Your task to perform on an android device: Clear all items from cart on target.com. Image 0: 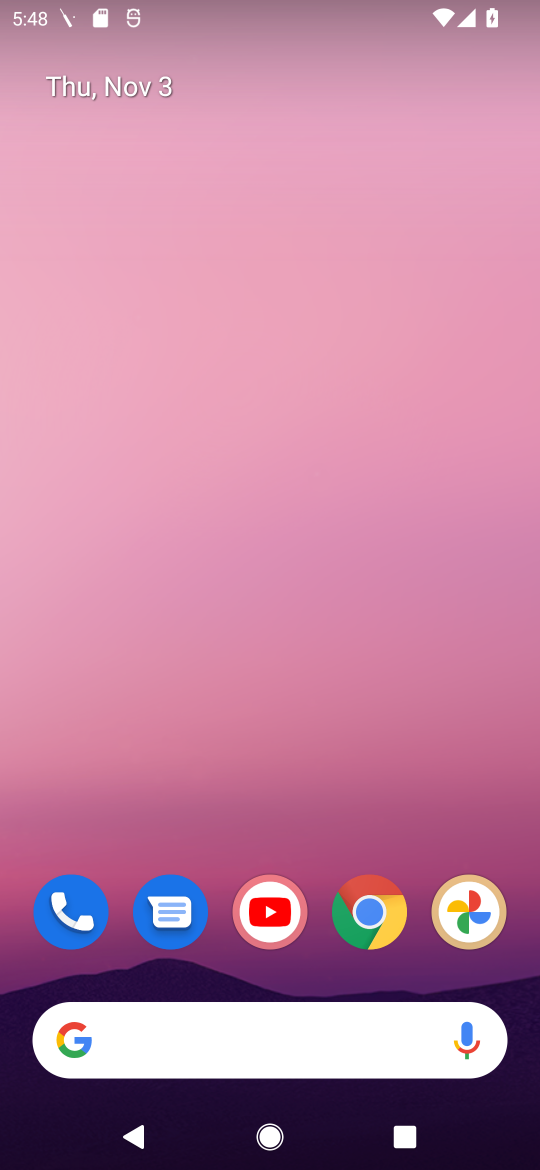
Step 0: click (368, 916)
Your task to perform on an android device: Clear all items from cart on target.com. Image 1: 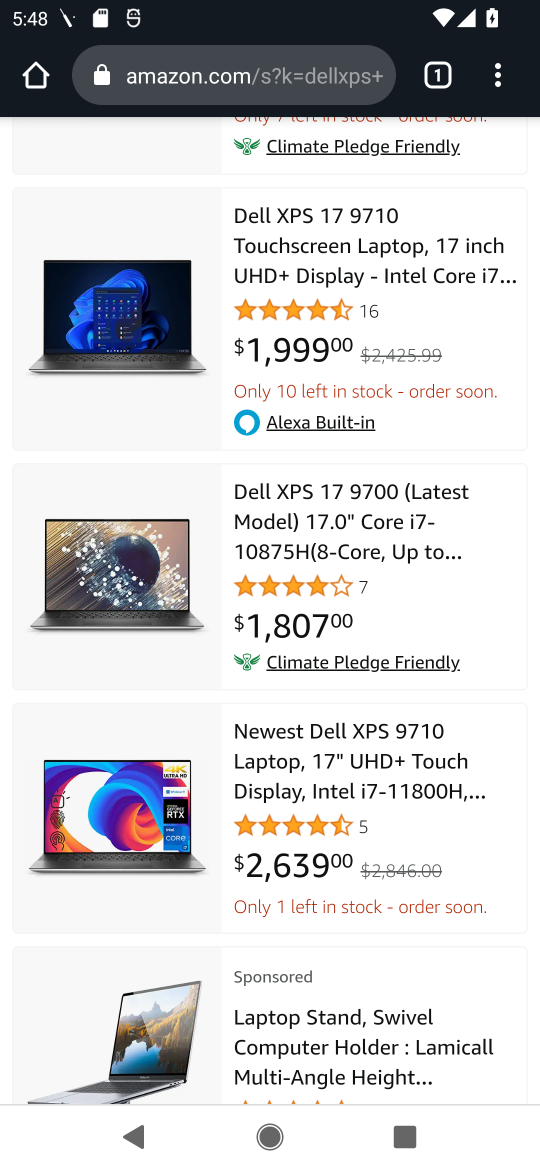
Step 1: click (268, 49)
Your task to perform on an android device: Clear all items from cart on target.com. Image 2: 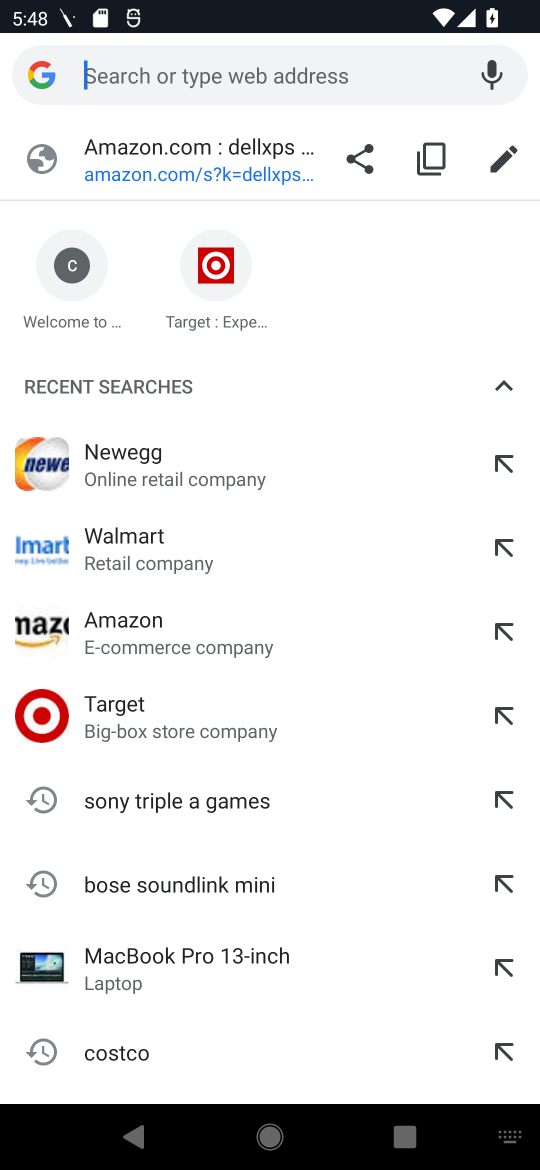
Step 2: type "target.com"
Your task to perform on an android device: Clear all items from cart on target.com. Image 3: 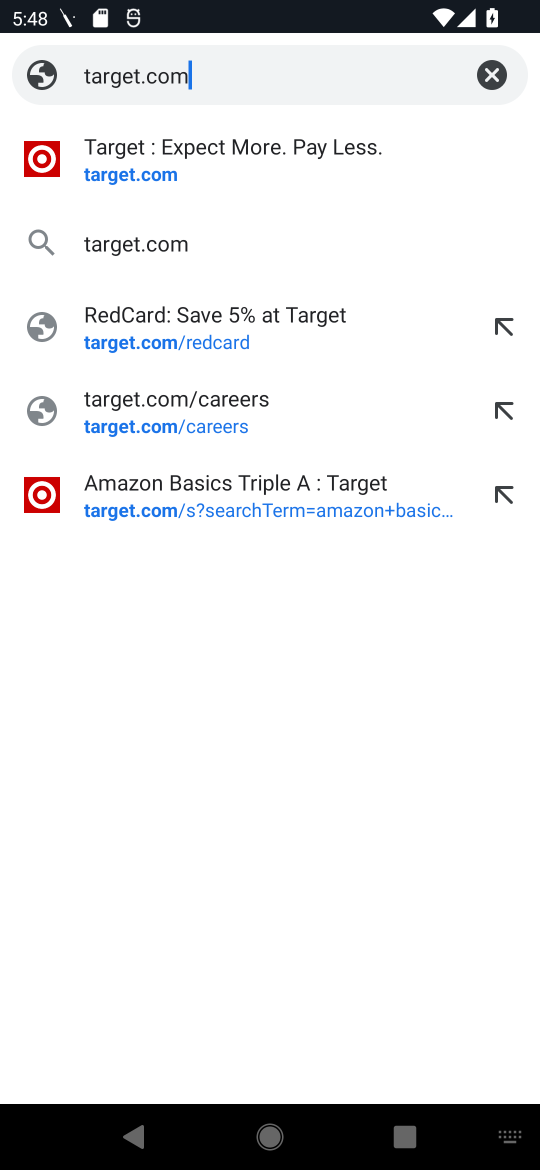
Step 3: click (123, 148)
Your task to perform on an android device: Clear all items from cart on target.com. Image 4: 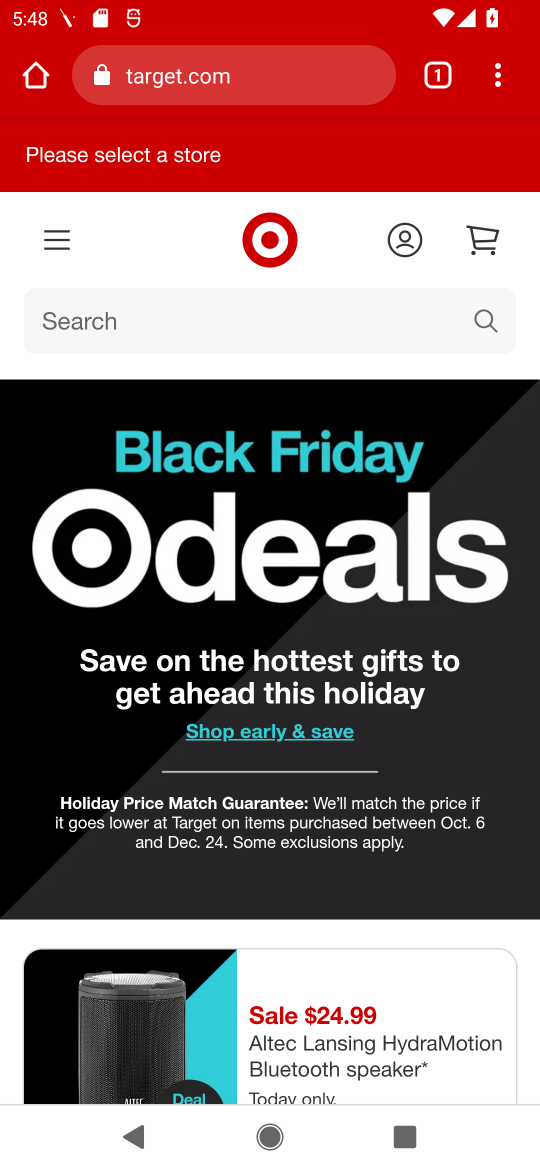
Step 4: click (75, 312)
Your task to perform on an android device: Clear all items from cart on target.com. Image 5: 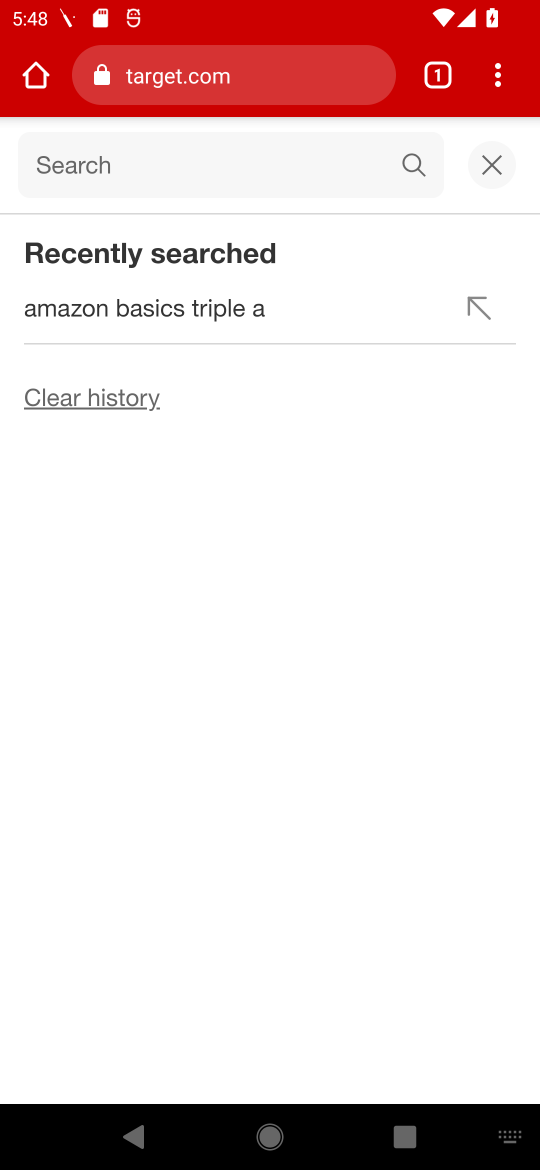
Step 5: click (496, 161)
Your task to perform on an android device: Clear all items from cart on target.com. Image 6: 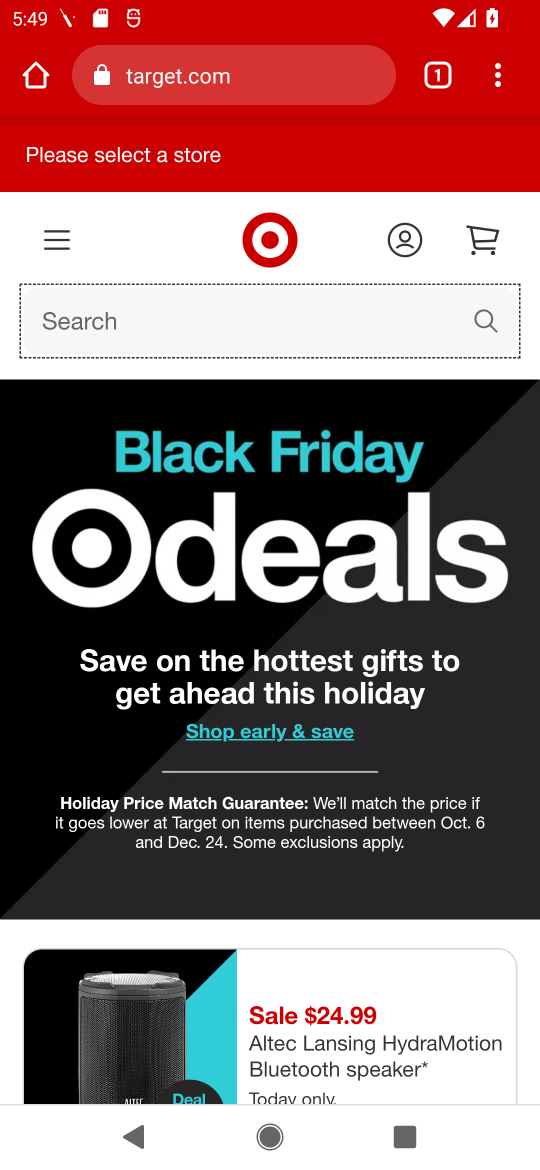
Step 6: click (488, 242)
Your task to perform on an android device: Clear all items from cart on target.com. Image 7: 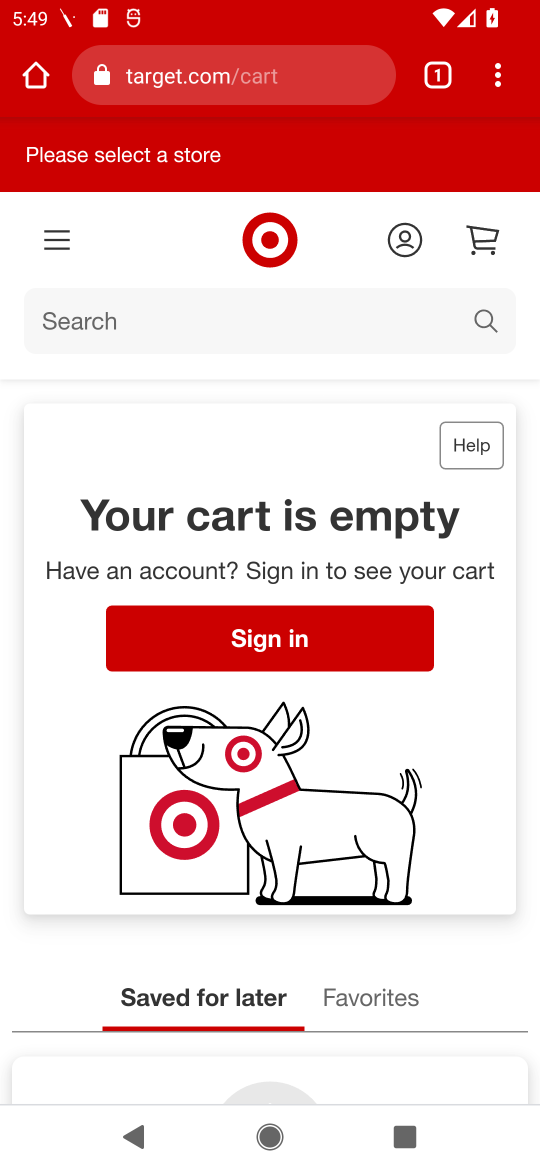
Step 7: task complete